Your task to perform on an android device: Go to Android settings Image 0: 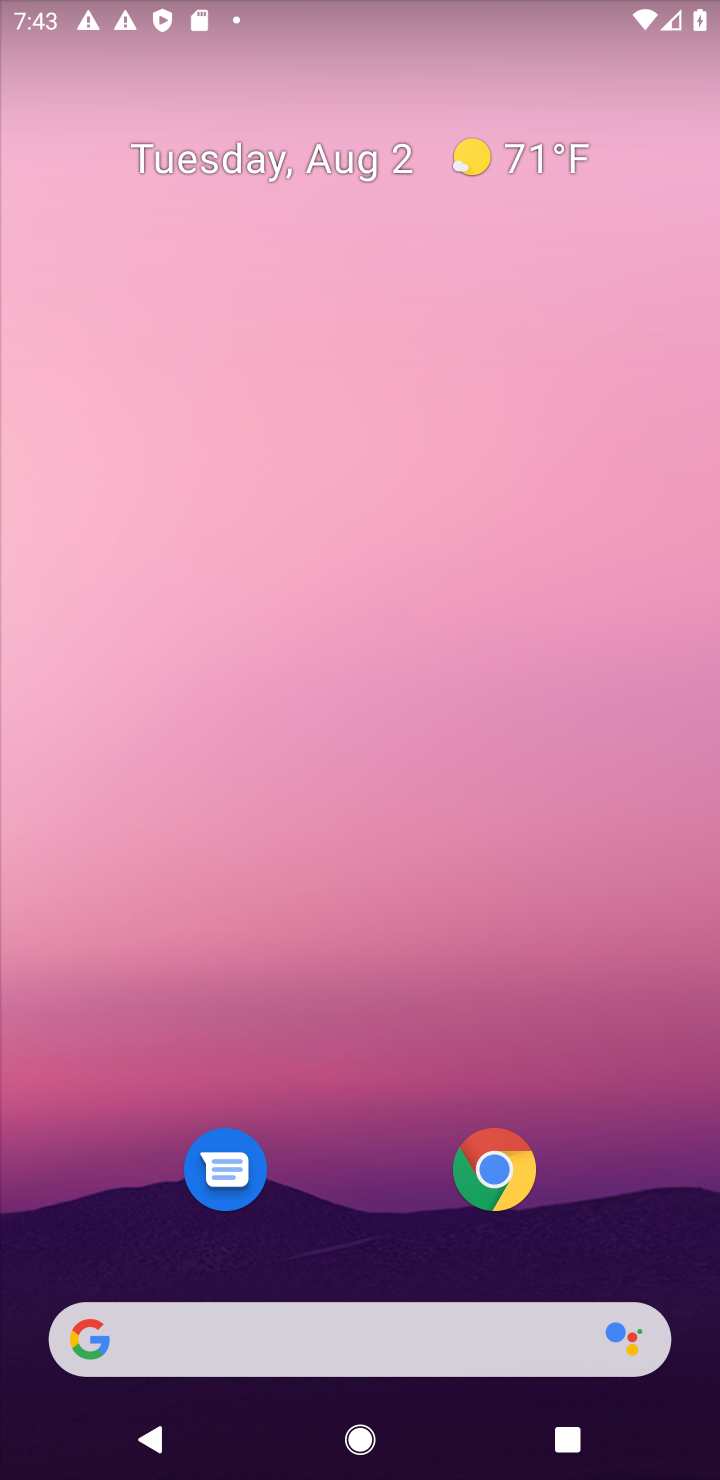
Step 0: drag from (401, 1018) to (715, 254)
Your task to perform on an android device: Go to Android settings Image 1: 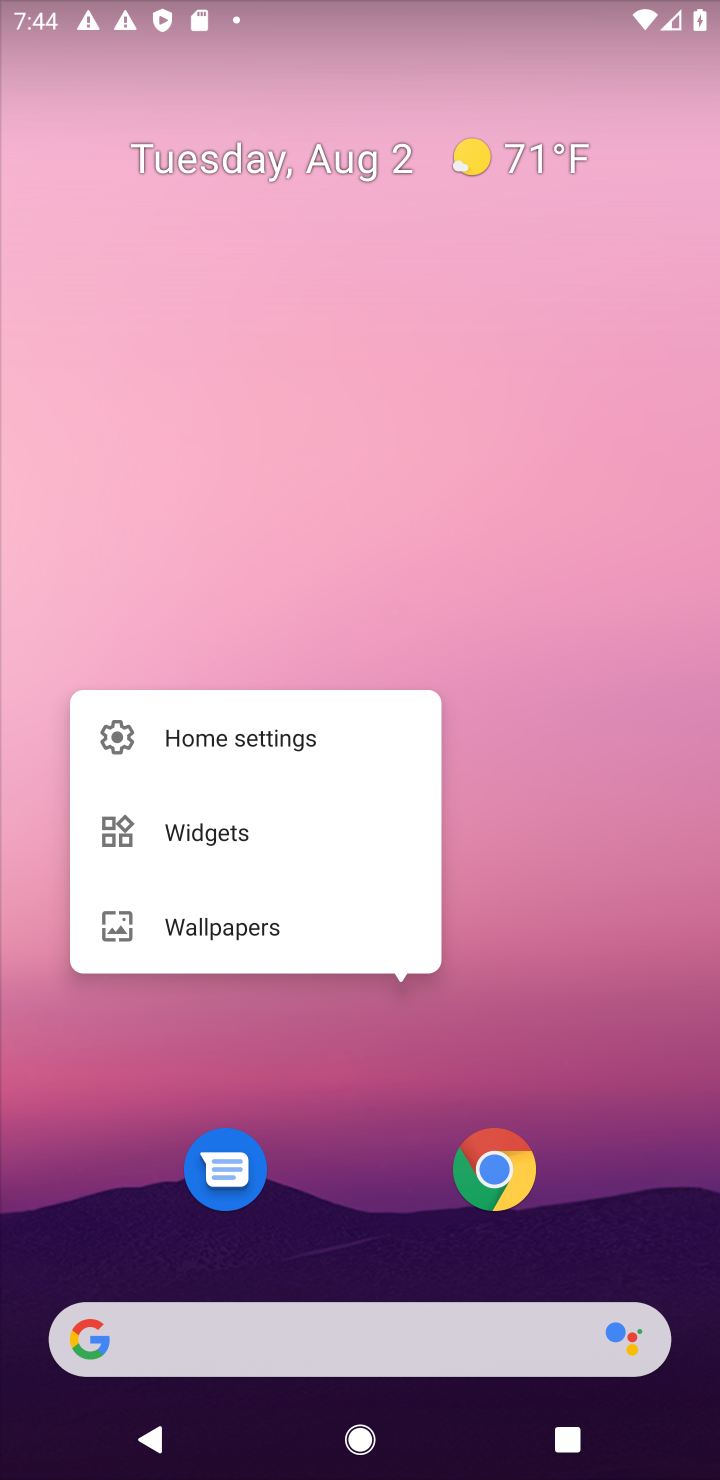
Step 1: click (553, 605)
Your task to perform on an android device: Go to Android settings Image 2: 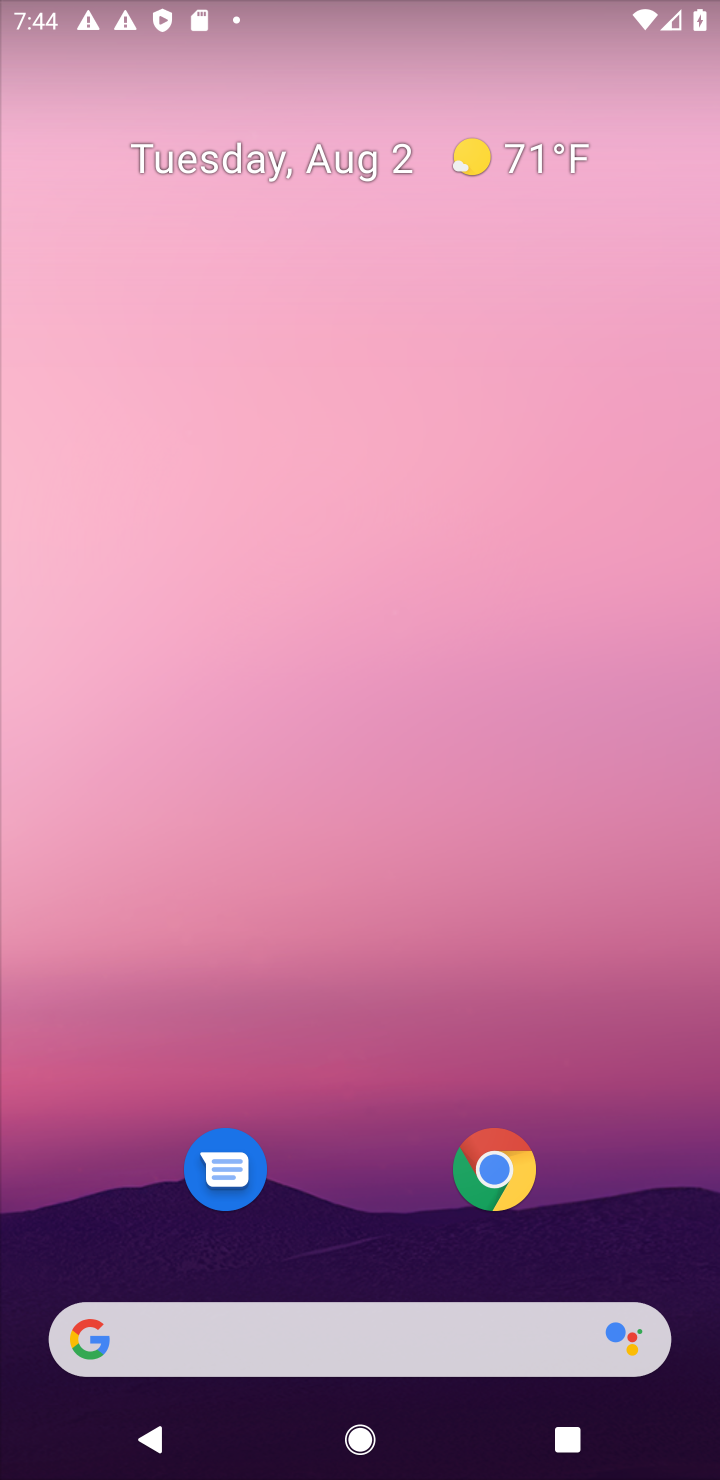
Step 2: drag from (380, 998) to (309, 9)
Your task to perform on an android device: Go to Android settings Image 3: 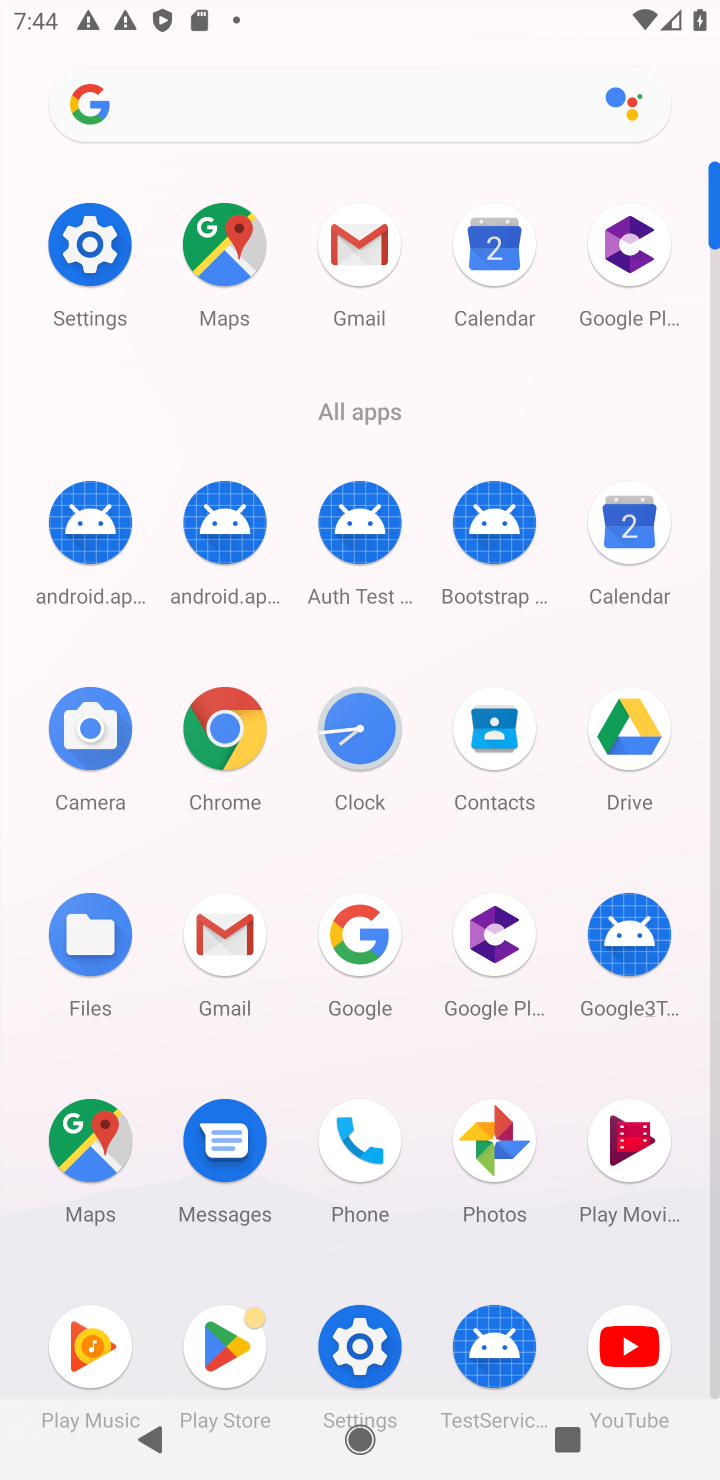
Step 3: click (94, 250)
Your task to perform on an android device: Go to Android settings Image 4: 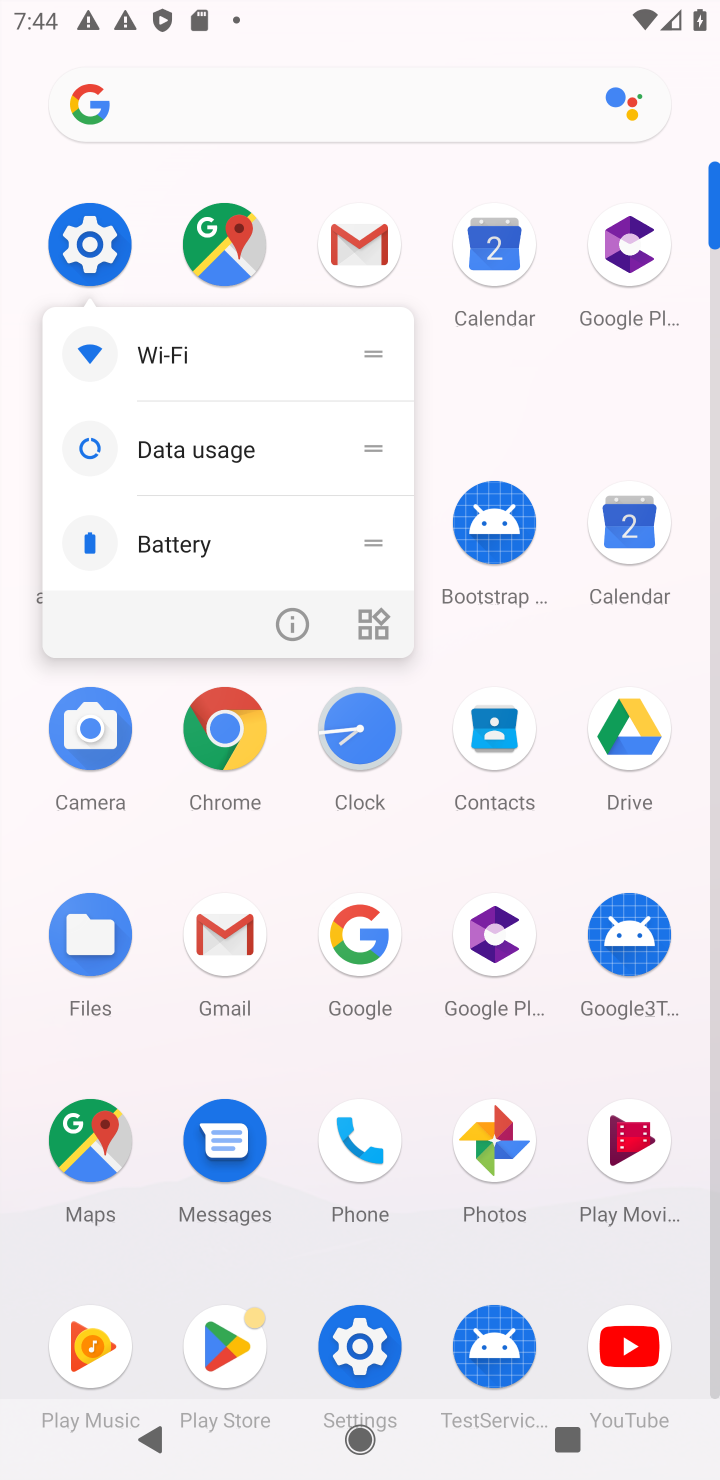
Step 4: click (94, 250)
Your task to perform on an android device: Go to Android settings Image 5: 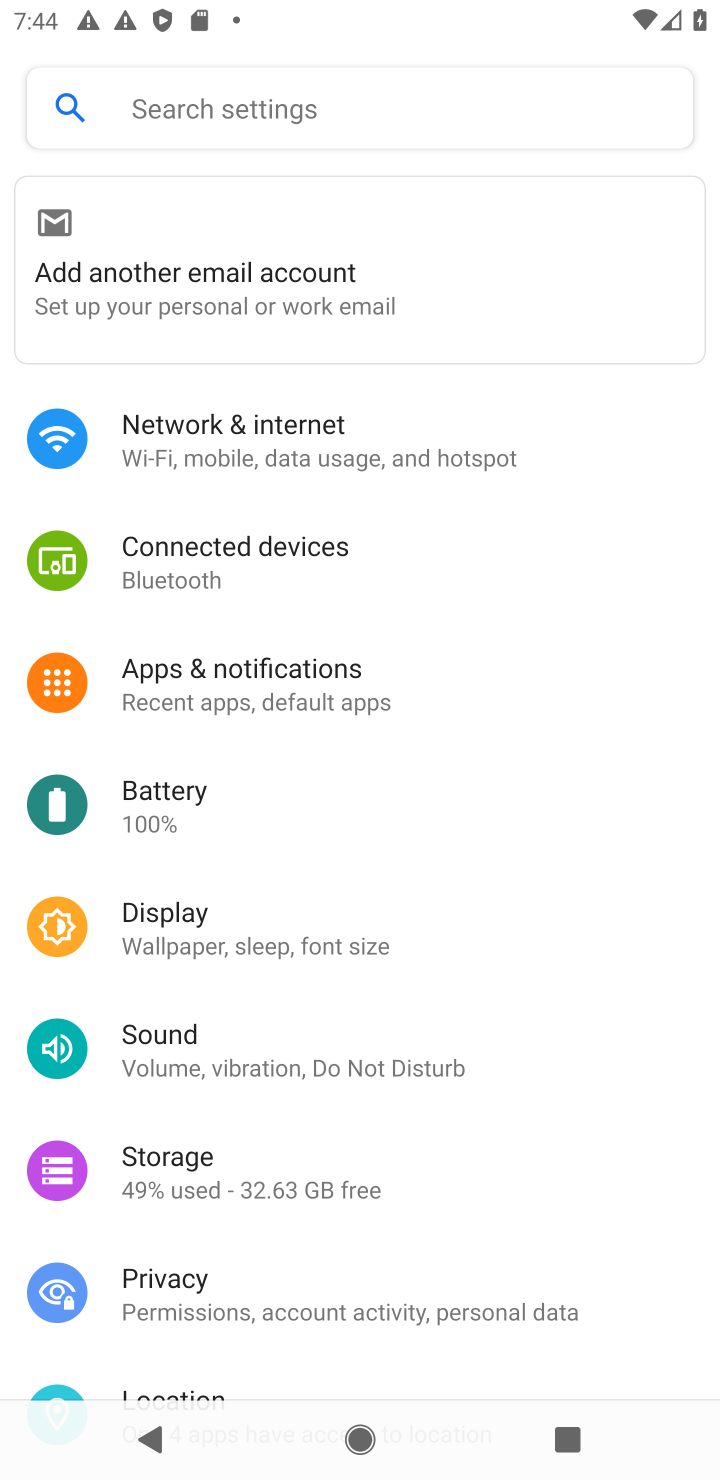
Step 5: drag from (370, 1241) to (403, 89)
Your task to perform on an android device: Go to Android settings Image 6: 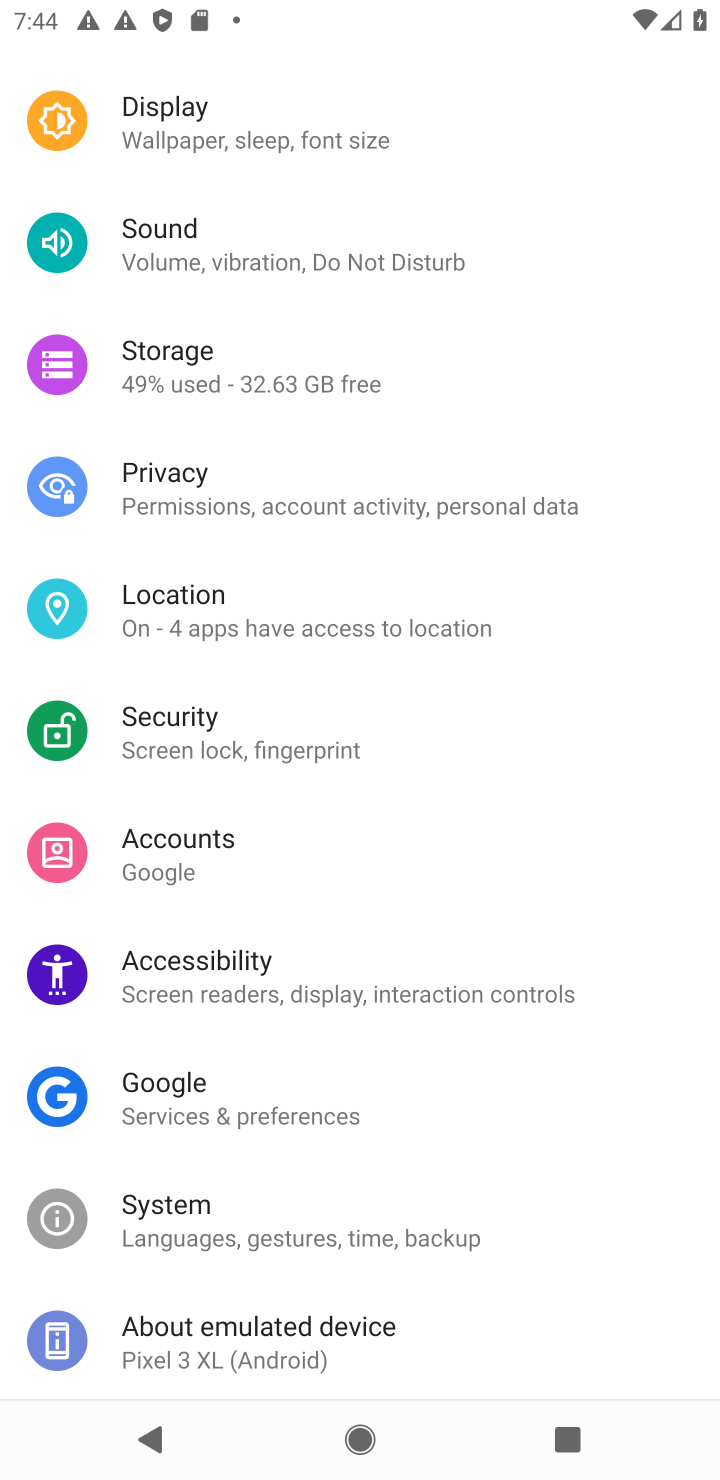
Step 6: click (306, 1336)
Your task to perform on an android device: Go to Android settings Image 7: 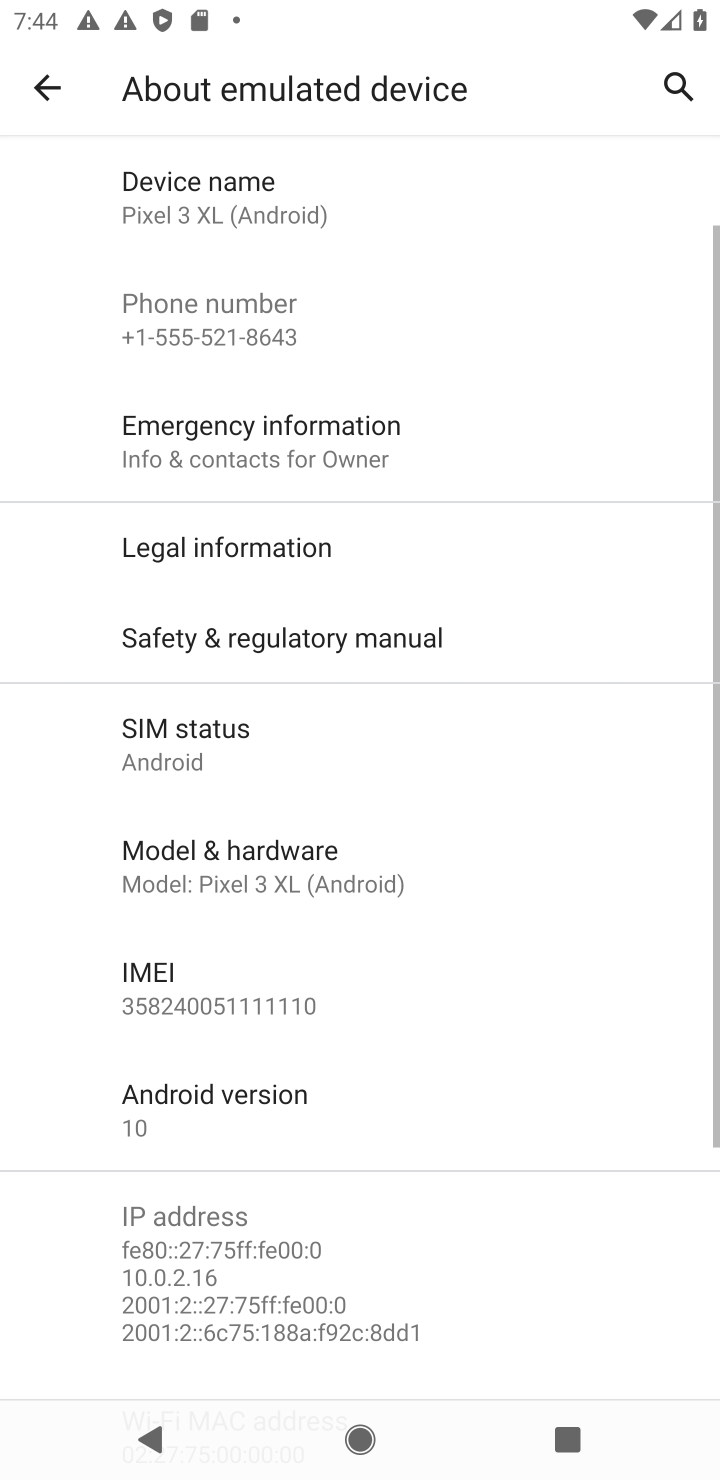
Step 7: task complete